Your task to perform on an android device: change keyboard looks Image 0: 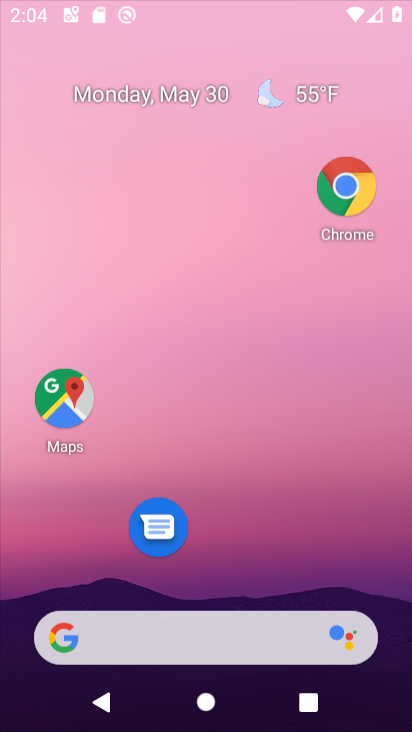
Step 0: click (251, 112)
Your task to perform on an android device: change keyboard looks Image 1: 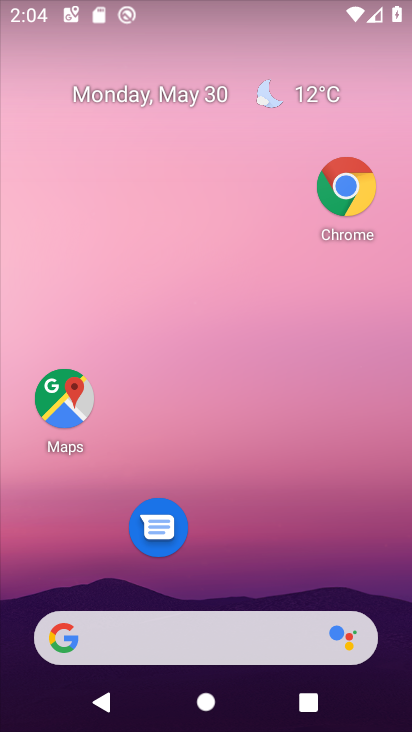
Step 1: drag from (195, 571) to (194, 102)
Your task to perform on an android device: change keyboard looks Image 2: 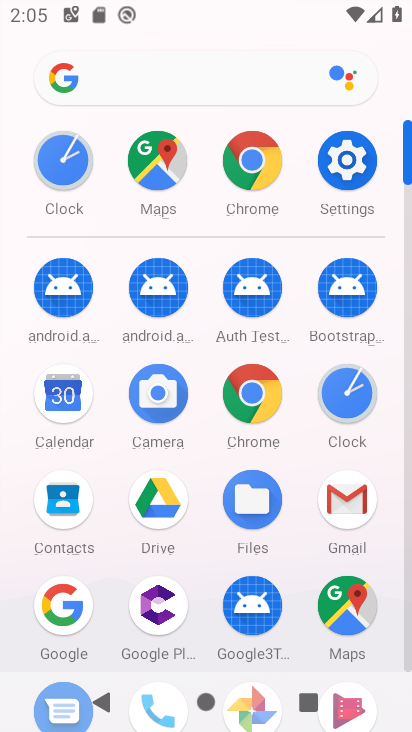
Step 2: click (355, 164)
Your task to perform on an android device: change keyboard looks Image 3: 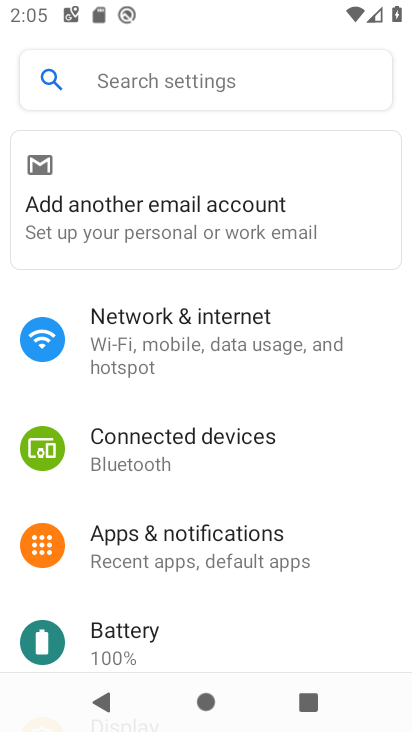
Step 3: drag from (221, 609) to (227, 213)
Your task to perform on an android device: change keyboard looks Image 4: 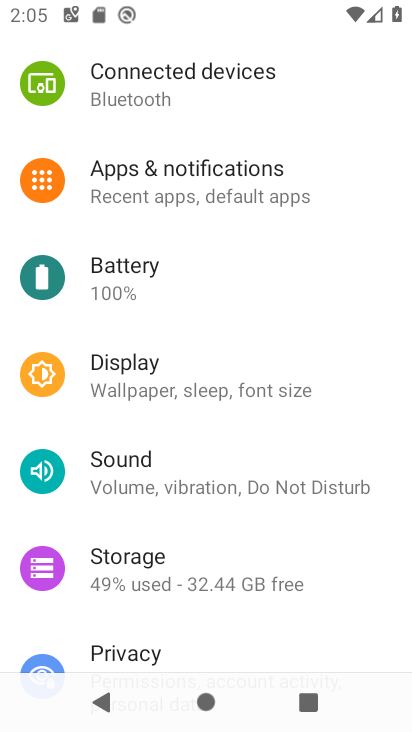
Step 4: drag from (213, 556) to (240, 10)
Your task to perform on an android device: change keyboard looks Image 5: 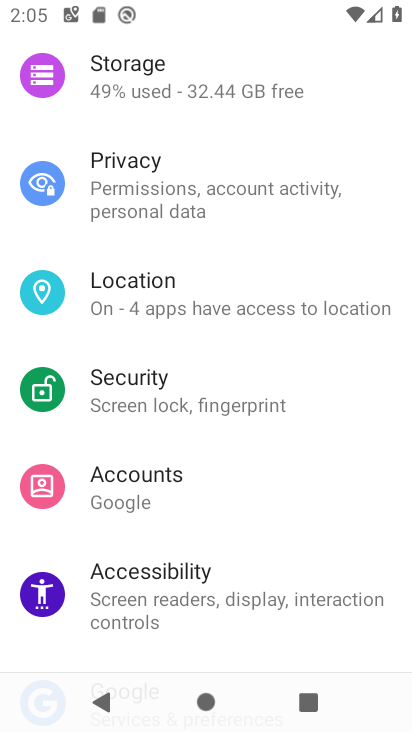
Step 5: drag from (207, 567) to (262, 56)
Your task to perform on an android device: change keyboard looks Image 6: 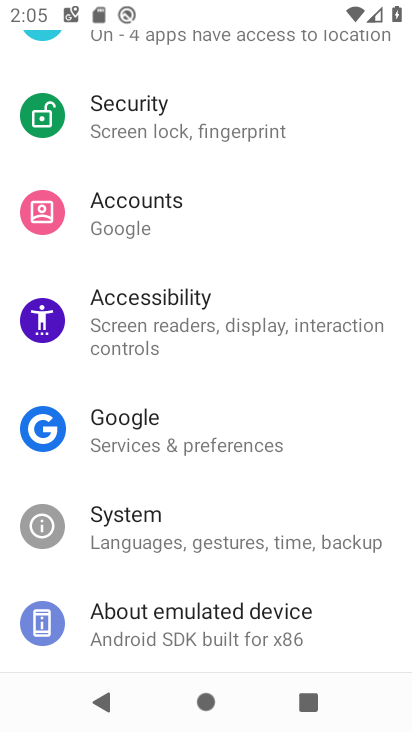
Step 6: click (175, 532)
Your task to perform on an android device: change keyboard looks Image 7: 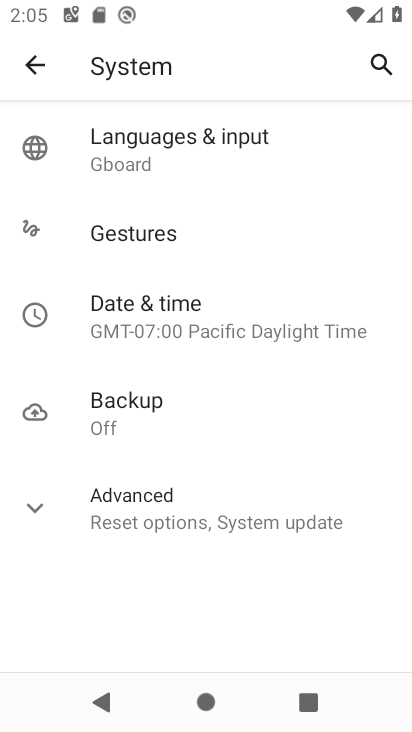
Step 7: click (225, 159)
Your task to perform on an android device: change keyboard looks Image 8: 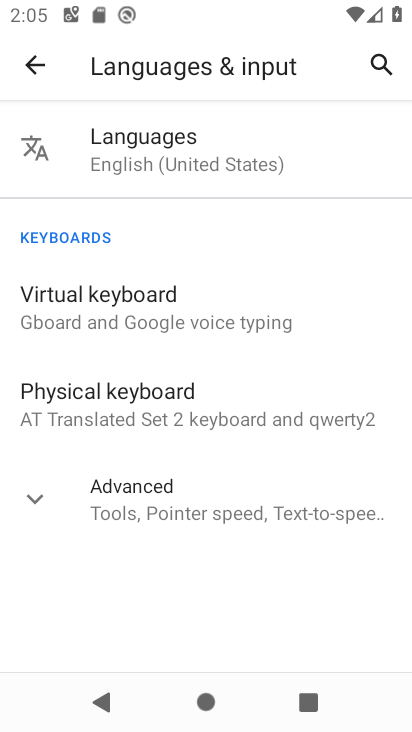
Step 8: click (182, 344)
Your task to perform on an android device: change keyboard looks Image 9: 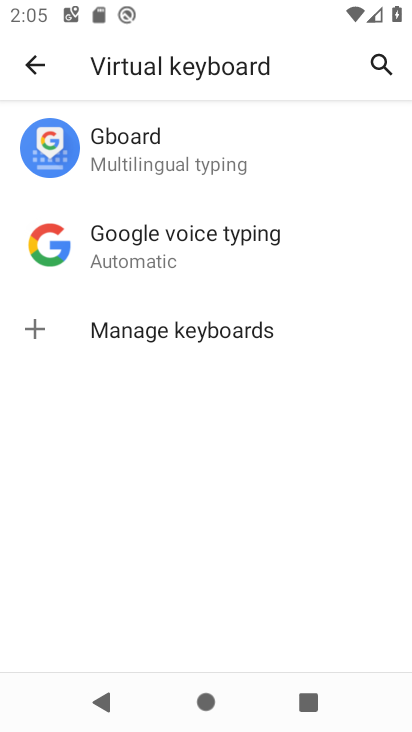
Step 9: click (116, 118)
Your task to perform on an android device: change keyboard looks Image 10: 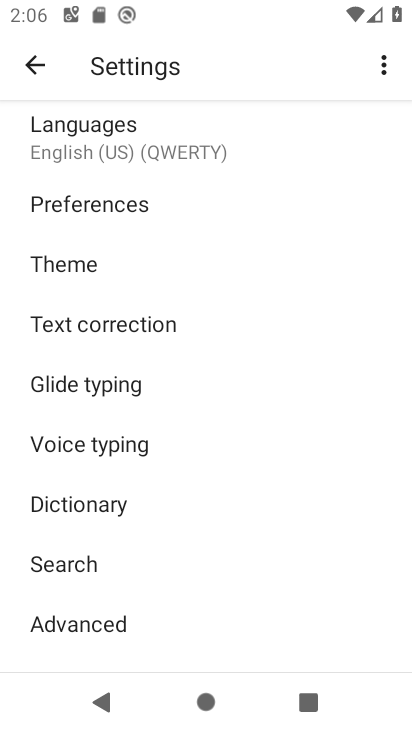
Step 10: click (152, 137)
Your task to perform on an android device: change keyboard looks Image 11: 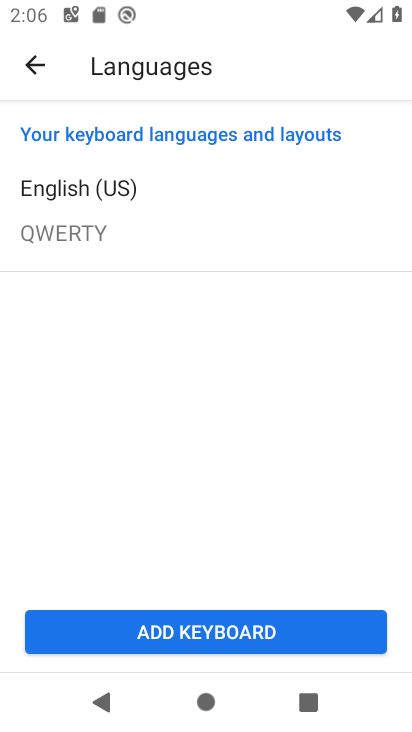
Step 11: click (44, 85)
Your task to perform on an android device: change keyboard looks Image 12: 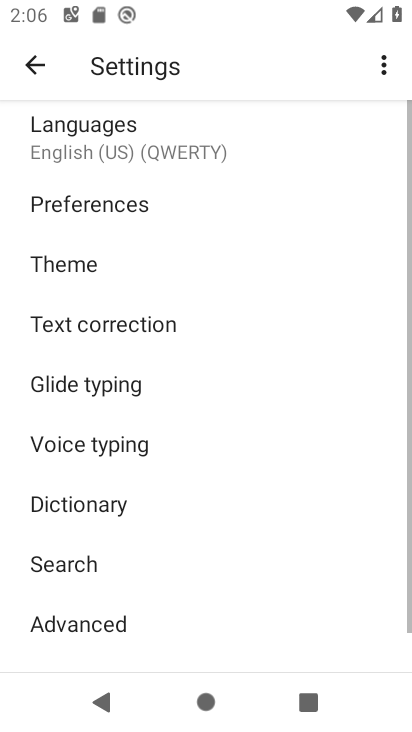
Step 12: click (109, 251)
Your task to perform on an android device: change keyboard looks Image 13: 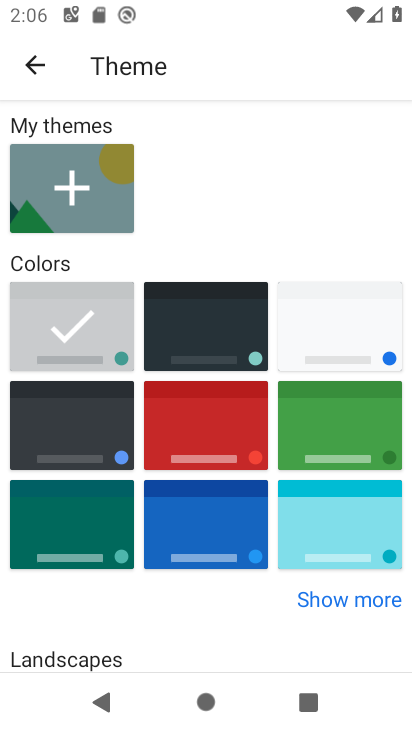
Step 13: drag from (185, 464) to (250, 202)
Your task to perform on an android device: change keyboard looks Image 14: 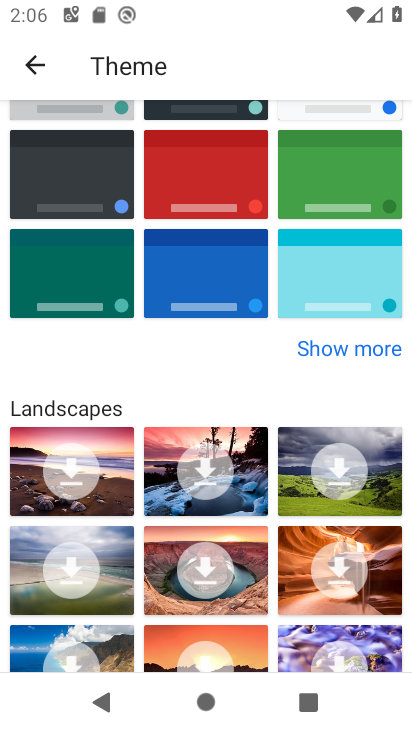
Step 14: drag from (197, 297) to (260, 649)
Your task to perform on an android device: change keyboard looks Image 15: 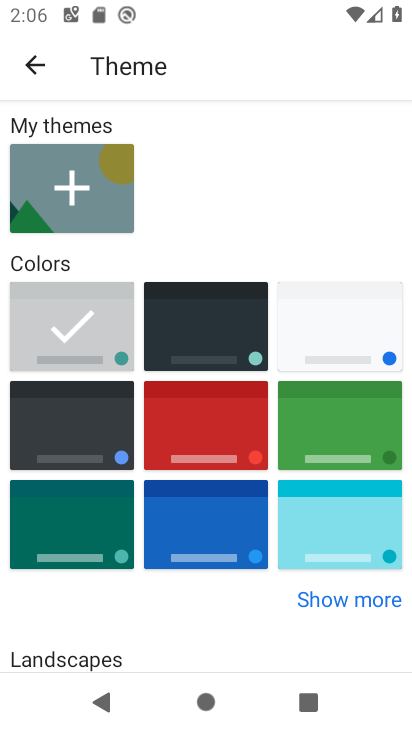
Step 15: click (205, 333)
Your task to perform on an android device: change keyboard looks Image 16: 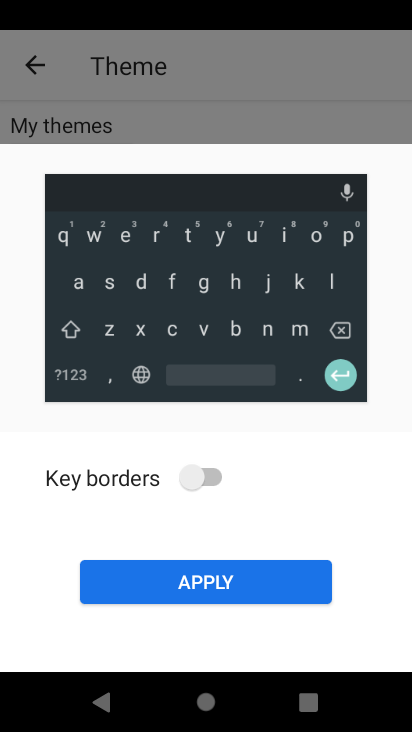
Step 16: click (194, 580)
Your task to perform on an android device: change keyboard looks Image 17: 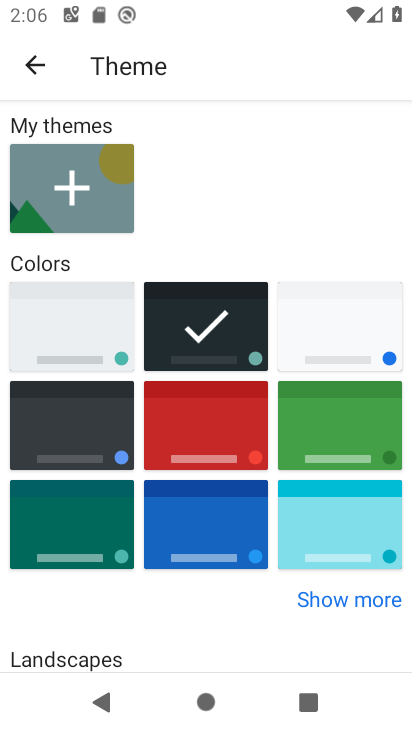
Step 17: task complete